Your task to perform on an android device: see sites visited before in the chrome app Image 0: 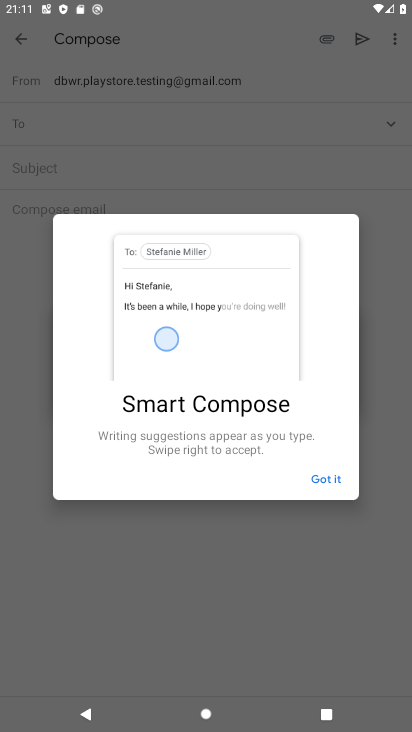
Step 0: press home button
Your task to perform on an android device: see sites visited before in the chrome app Image 1: 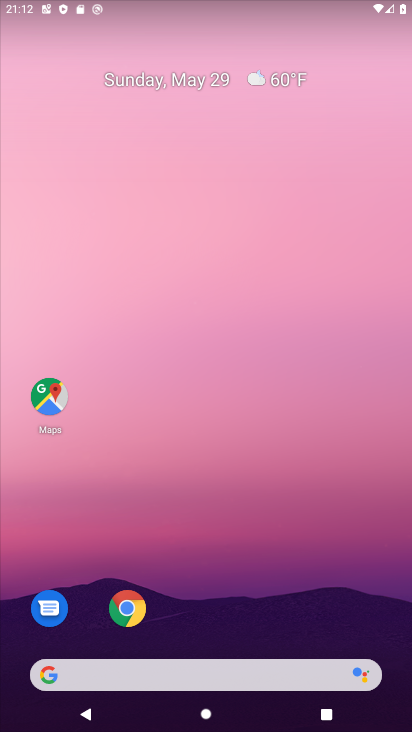
Step 1: drag from (370, 612) to (374, 191)
Your task to perform on an android device: see sites visited before in the chrome app Image 2: 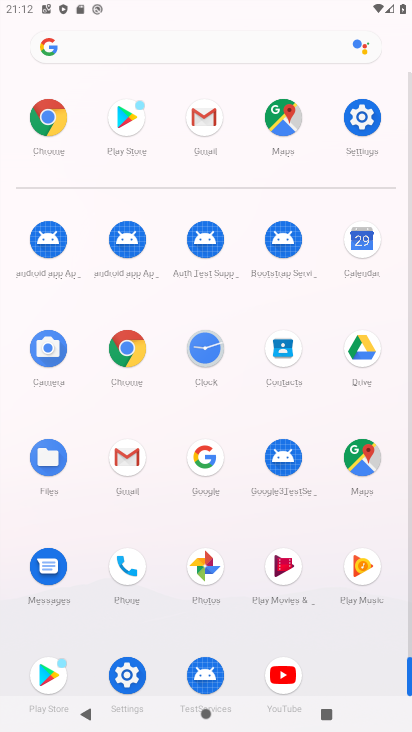
Step 2: click (134, 353)
Your task to perform on an android device: see sites visited before in the chrome app Image 3: 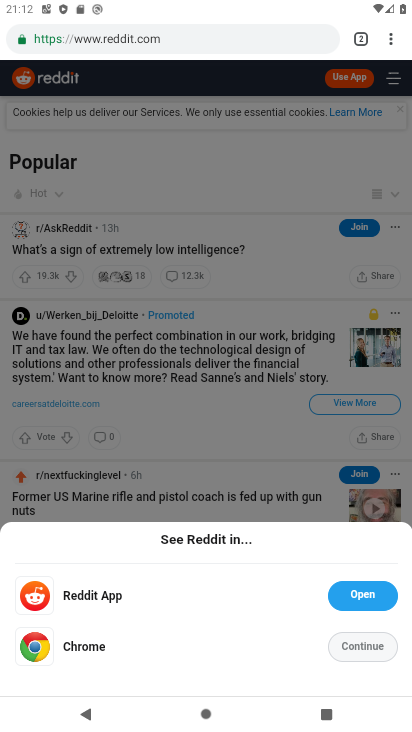
Step 3: click (388, 41)
Your task to perform on an android device: see sites visited before in the chrome app Image 4: 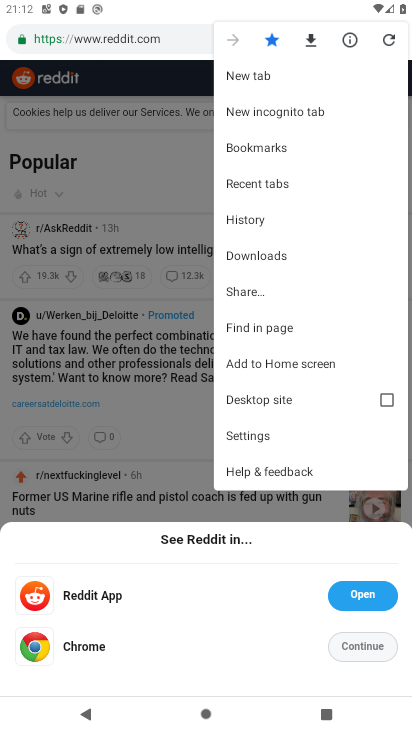
Step 4: click (267, 218)
Your task to perform on an android device: see sites visited before in the chrome app Image 5: 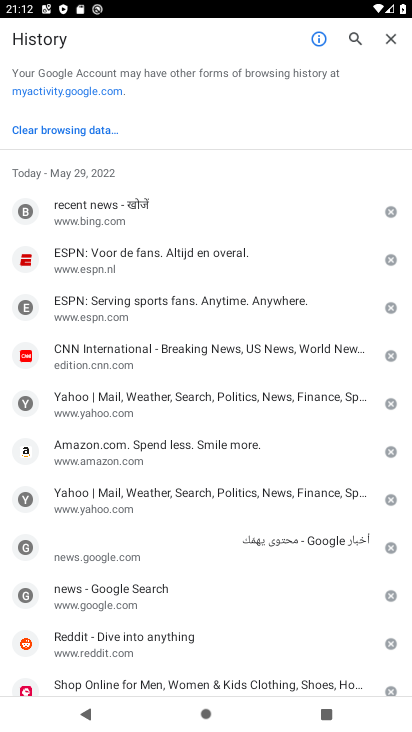
Step 5: task complete